Your task to perform on an android device: Go to Google maps Image 0: 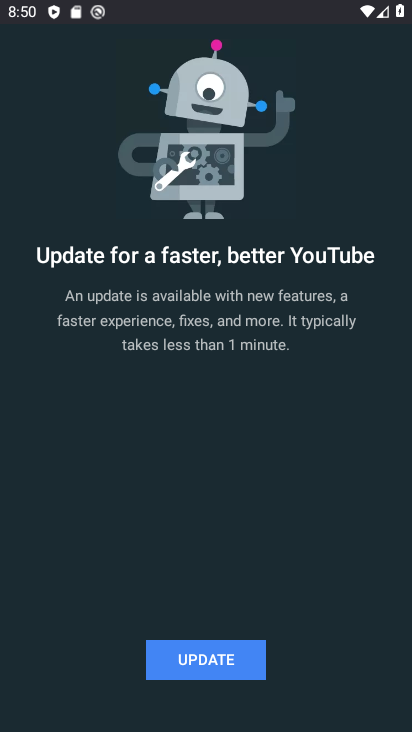
Step 0: press back button
Your task to perform on an android device: Go to Google maps Image 1: 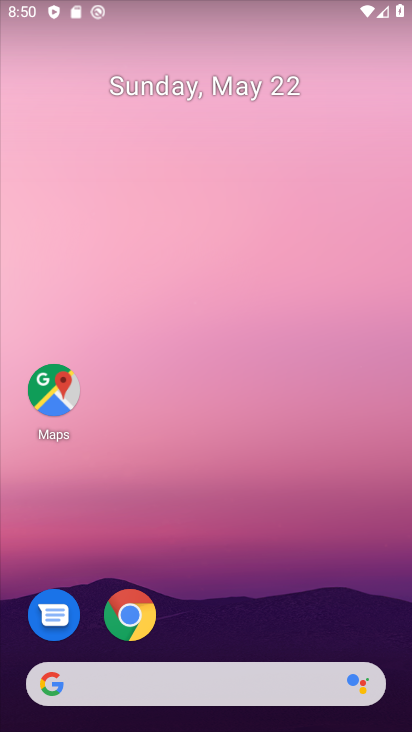
Step 1: click (54, 378)
Your task to perform on an android device: Go to Google maps Image 2: 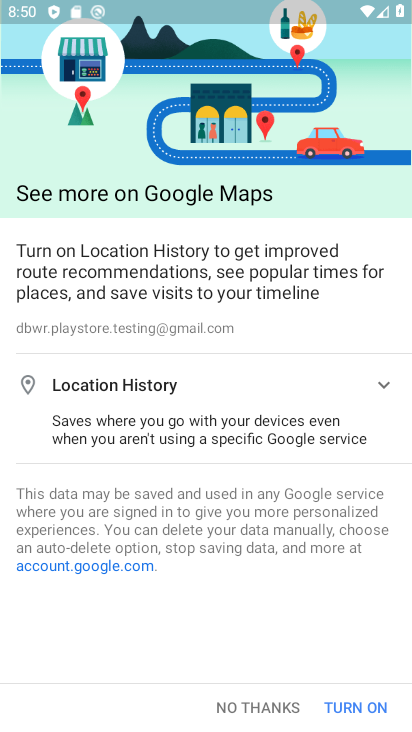
Step 2: click (261, 700)
Your task to perform on an android device: Go to Google maps Image 3: 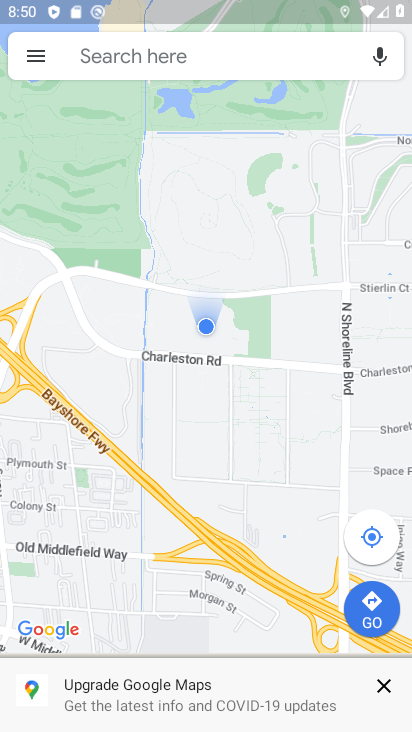
Step 3: task complete